Your task to perform on an android device: Search for seafood restaurants on Google Maps Image 0: 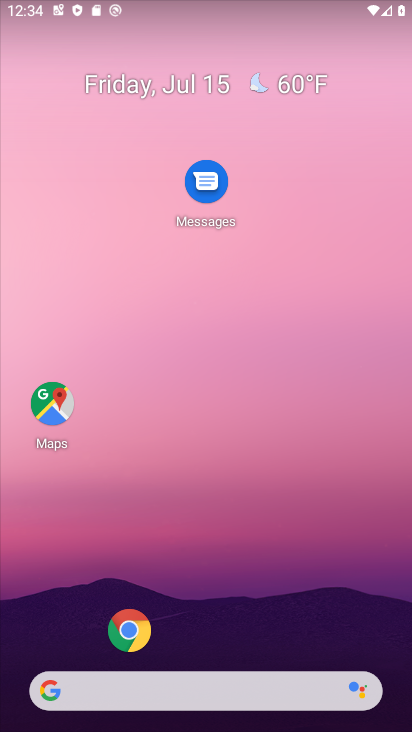
Step 0: click (56, 414)
Your task to perform on an android device: Search for seafood restaurants on Google Maps Image 1: 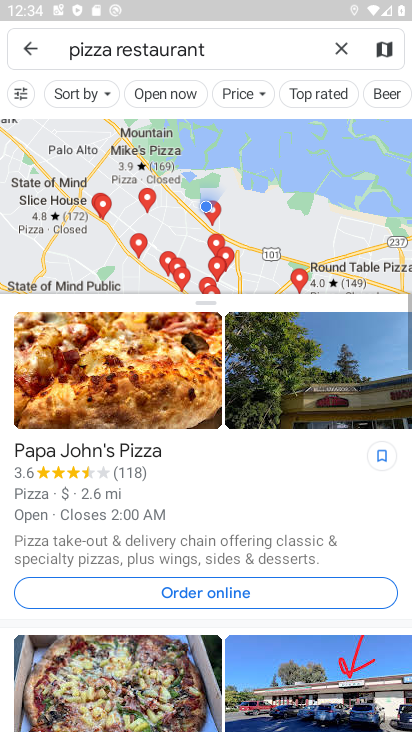
Step 1: click (31, 48)
Your task to perform on an android device: Search for seafood restaurants on Google Maps Image 2: 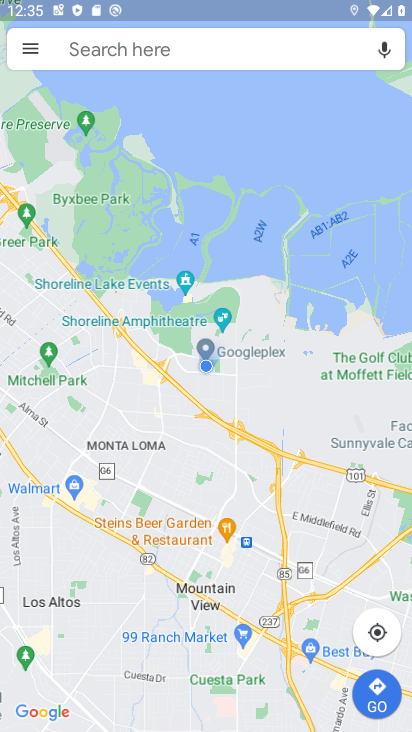
Step 2: click (72, 52)
Your task to perform on an android device: Search for seafood restaurants on Google Maps Image 3: 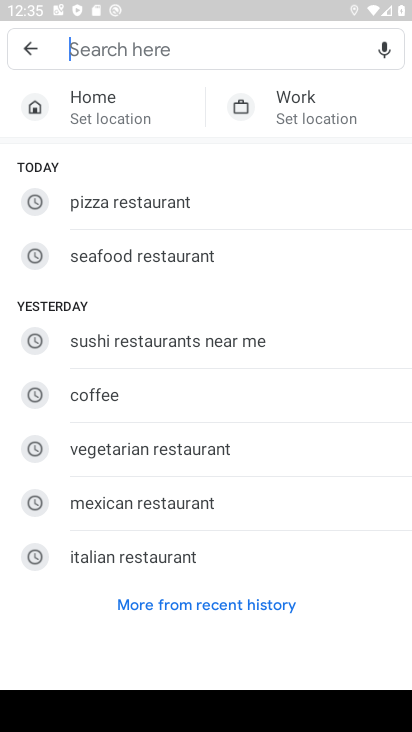
Step 3: click (127, 258)
Your task to perform on an android device: Search for seafood restaurants on Google Maps Image 4: 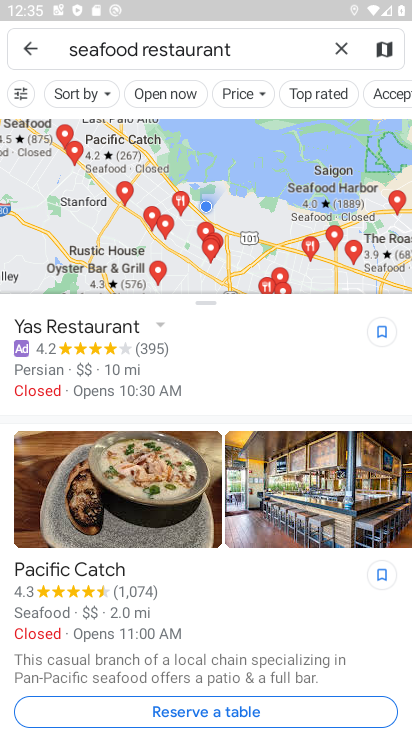
Step 4: task complete